Your task to perform on an android device: change timer sound Image 0: 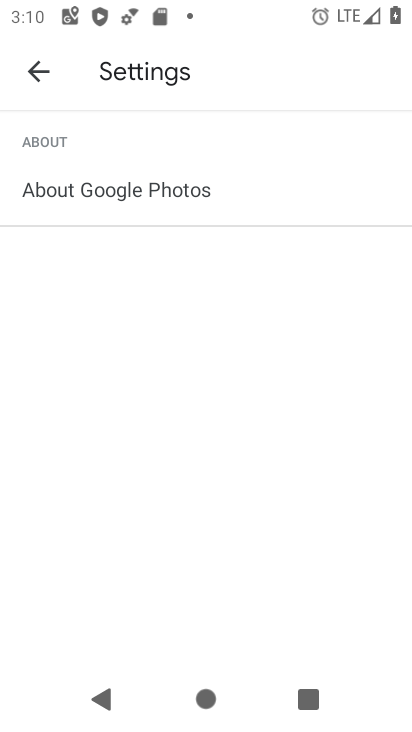
Step 0: press back button
Your task to perform on an android device: change timer sound Image 1: 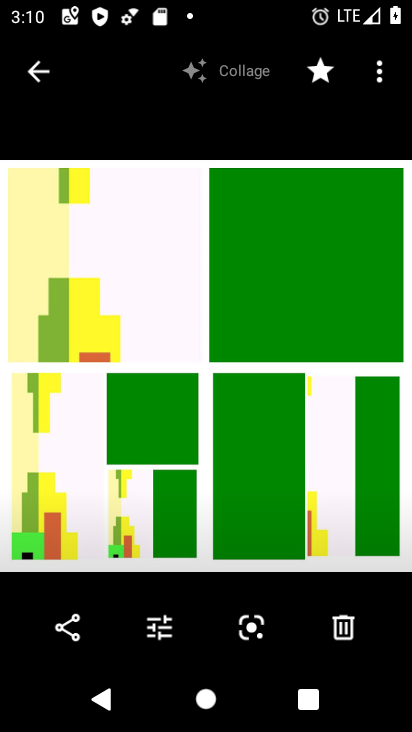
Step 1: press back button
Your task to perform on an android device: change timer sound Image 2: 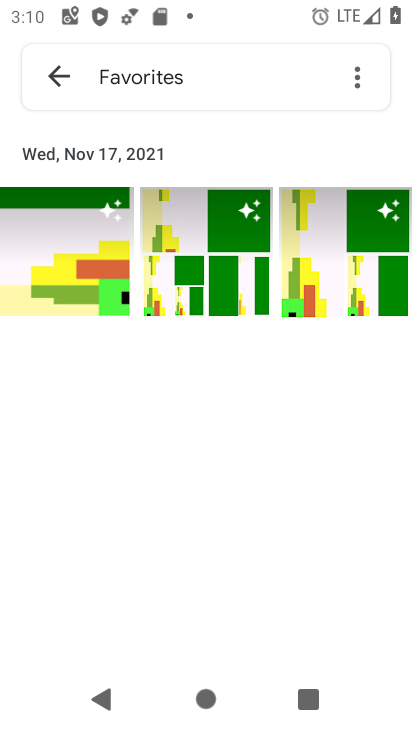
Step 2: press back button
Your task to perform on an android device: change timer sound Image 3: 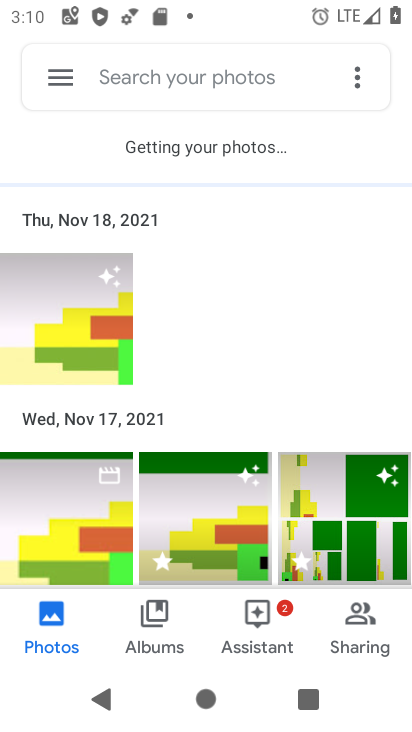
Step 3: press back button
Your task to perform on an android device: change timer sound Image 4: 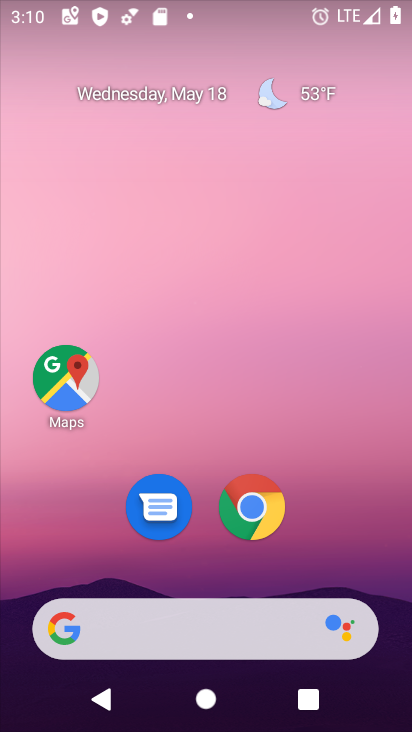
Step 4: drag from (329, 531) to (250, 139)
Your task to perform on an android device: change timer sound Image 5: 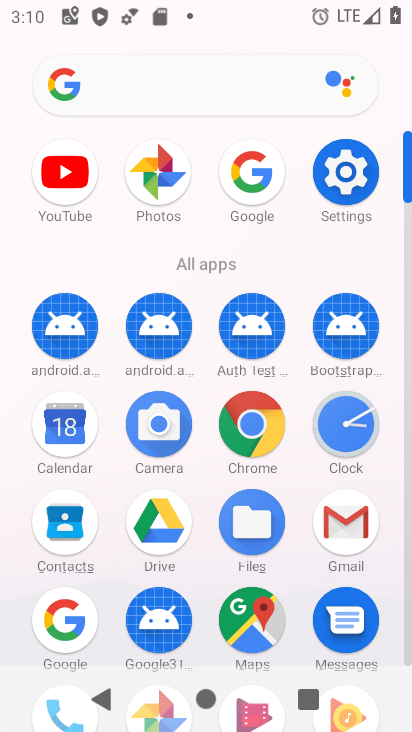
Step 5: click (344, 424)
Your task to perform on an android device: change timer sound Image 6: 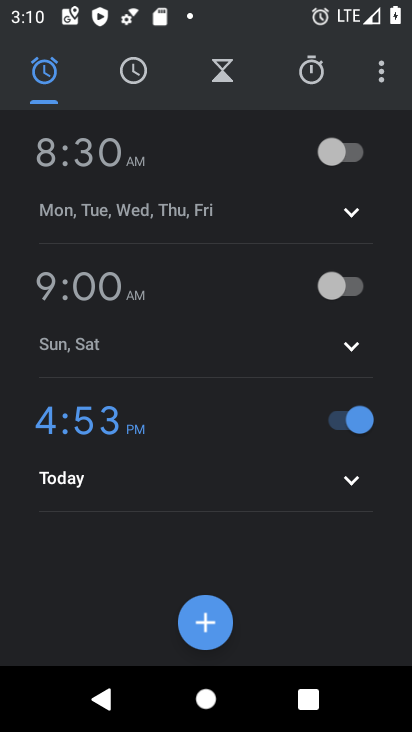
Step 6: click (385, 74)
Your task to perform on an android device: change timer sound Image 7: 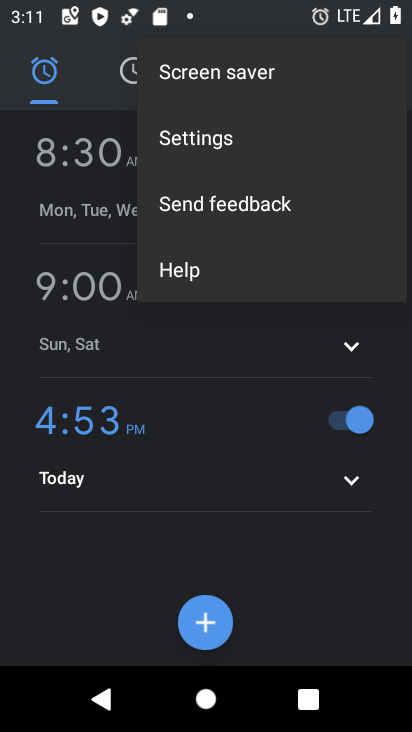
Step 7: click (225, 135)
Your task to perform on an android device: change timer sound Image 8: 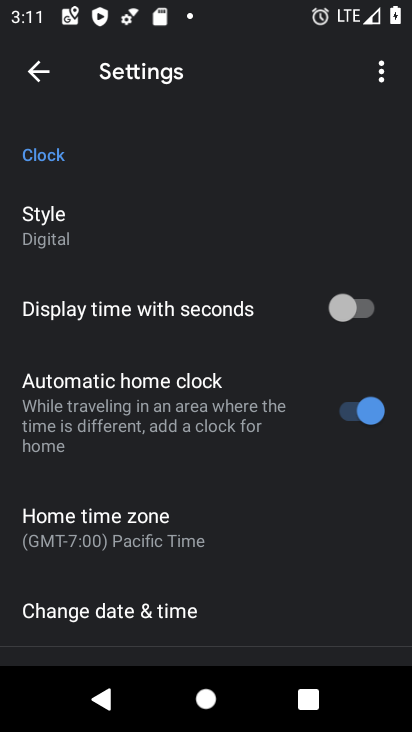
Step 8: drag from (133, 399) to (188, 252)
Your task to perform on an android device: change timer sound Image 9: 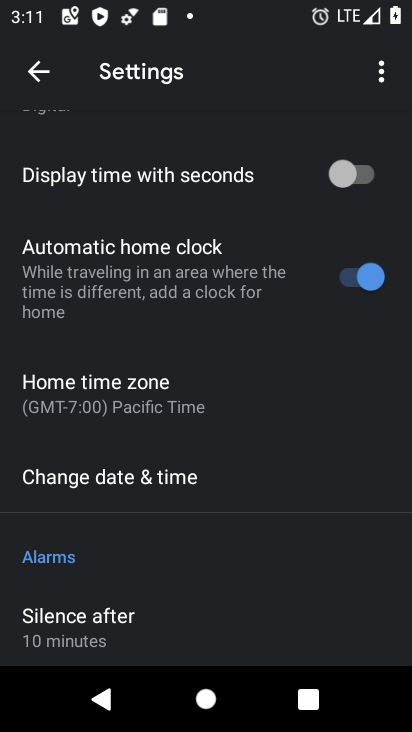
Step 9: drag from (158, 588) to (192, 451)
Your task to perform on an android device: change timer sound Image 10: 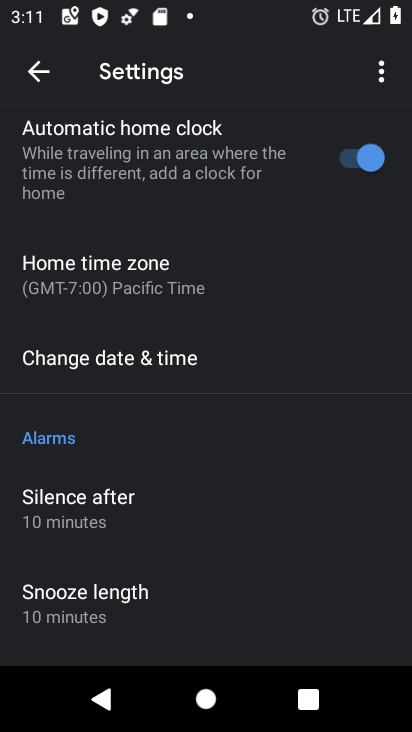
Step 10: drag from (215, 504) to (243, 398)
Your task to perform on an android device: change timer sound Image 11: 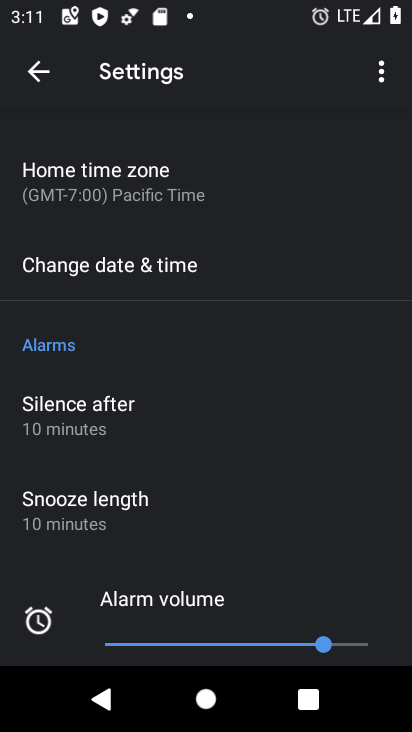
Step 11: drag from (198, 503) to (229, 320)
Your task to perform on an android device: change timer sound Image 12: 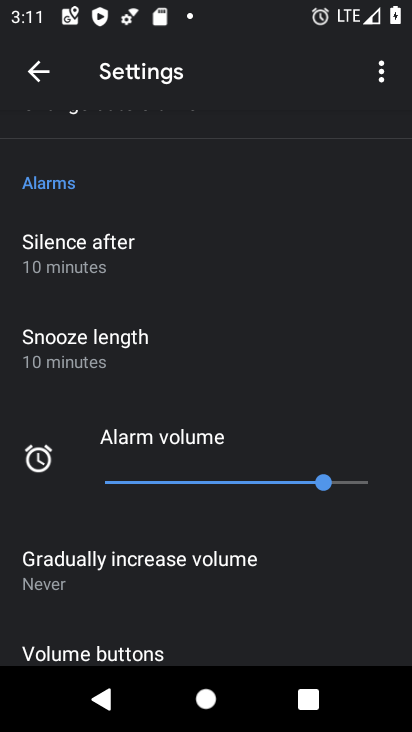
Step 12: drag from (250, 516) to (296, 369)
Your task to perform on an android device: change timer sound Image 13: 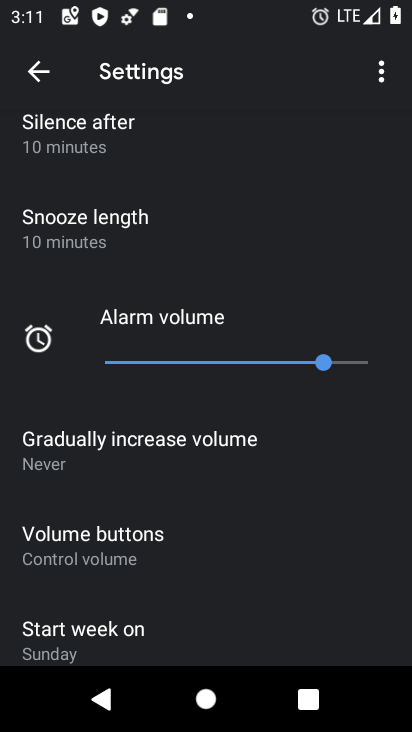
Step 13: drag from (225, 549) to (296, 370)
Your task to perform on an android device: change timer sound Image 14: 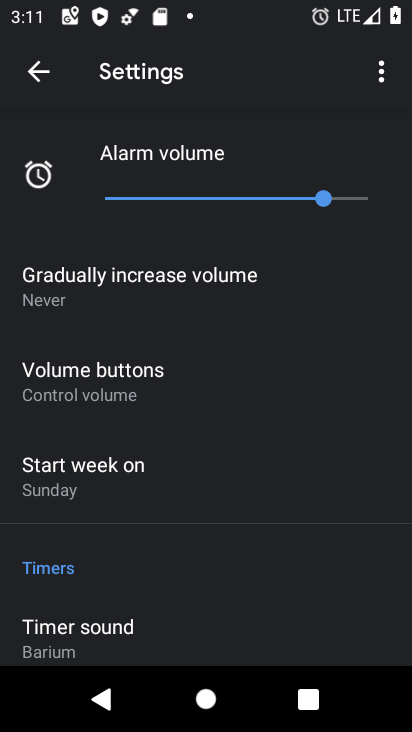
Step 14: drag from (123, 527) to (221, 358)
Your task to perform on an android device: change timer sound Image 15: 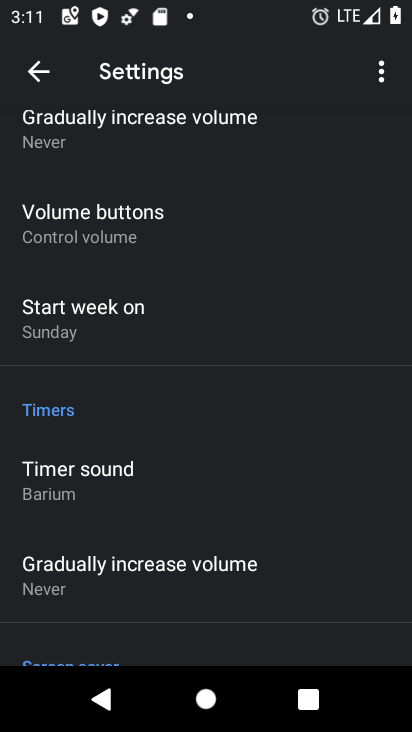
Step 15: click (91, 468)
Your task to perform on an android device: change timer sound Image 16: 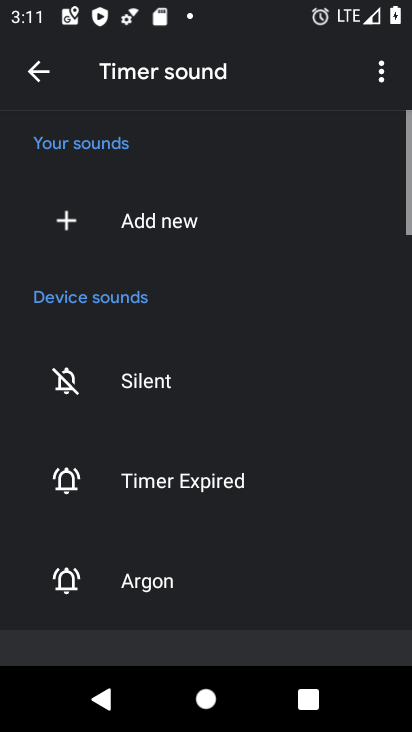
Step 16: drag from (211, 517) to (231, 309)
Your task to perform on an android device: change timer sound Image 17: 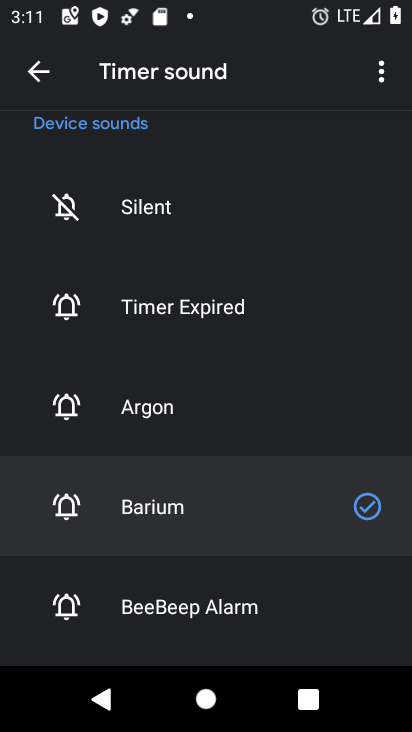
Step 17: drag from (164, 561) to (221, 329)
Your task to perform on an android device: change timer sound Image 18: 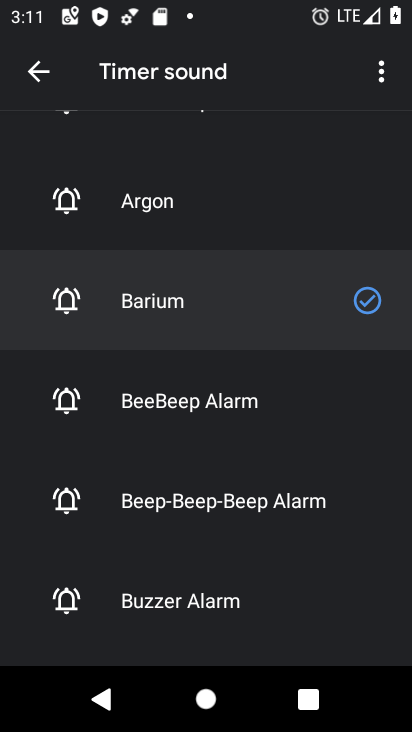
Step 18: drag from (212, 560) to (269, 292)
Your task to perform on an android device: change timer sound Image 19: 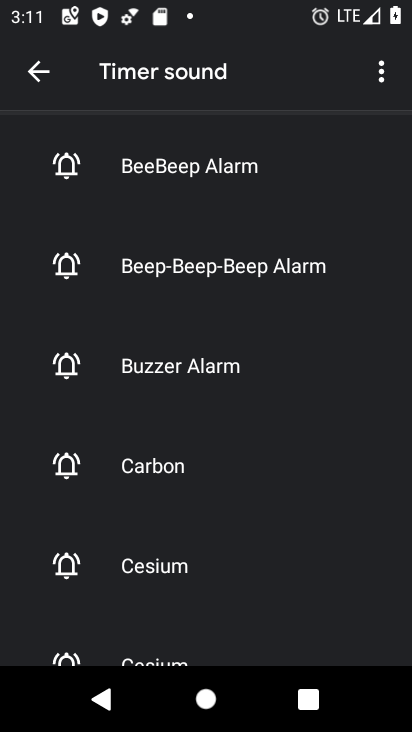
Step 19: drag from (205, 550) to (232, 288)
Your task to perform on an android device: change timer sound Image 20: 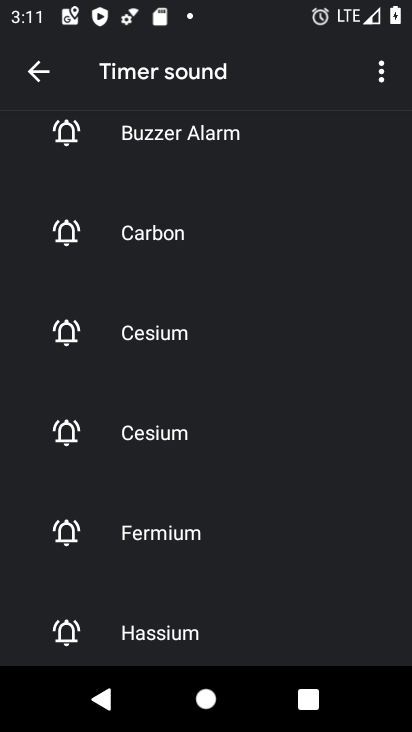
Step 20: drag from (213, 549) to (227, 310)
Your task to perform on an android device: change timer sound Image 21: 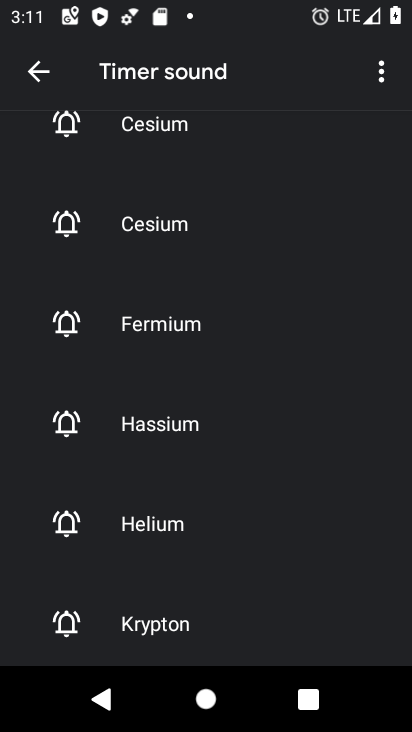
Step 21: click (151, 424)
Your task to perform on an android device: change timer sound Image 22: 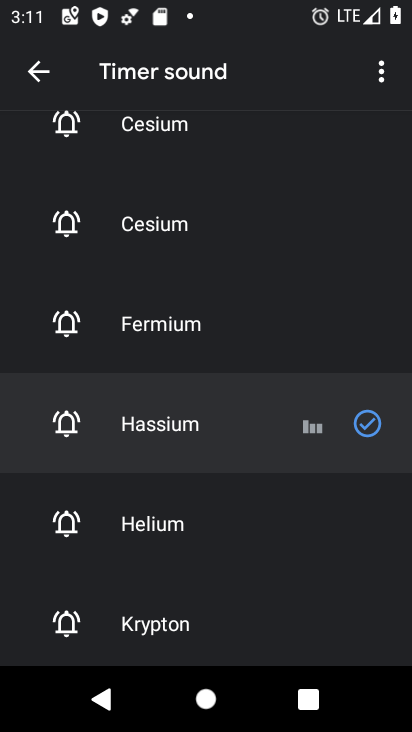
Step 22: task complete